Your task to perform on an android device: Search for "dell xps" on ebay, select the first entry, and add it to the cart. Image 0: 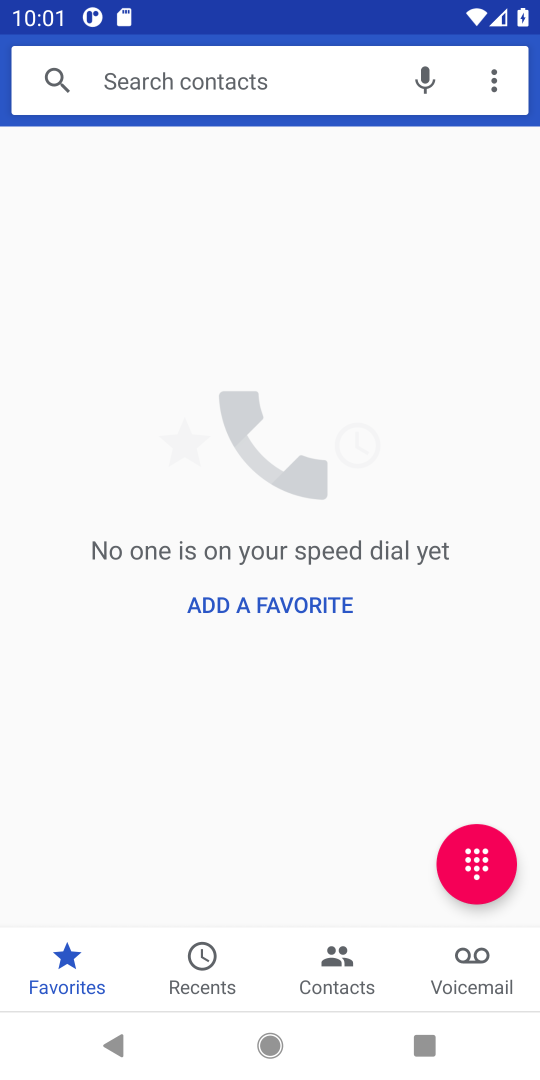
Step 0: press home button
Your task to perform on an android device: Search for "dell xps" on ebay, select the first entry, and add it to the cart. Image 1: 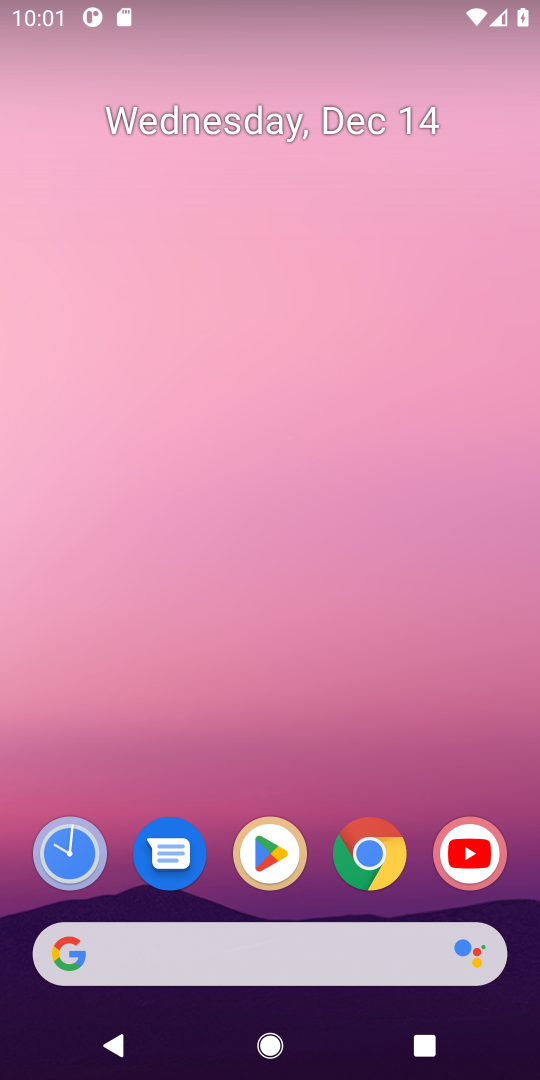
Step 1: click (376, 853)
Your task to perform on an android device: Search for "dell xps" on ebay, select the first entry, and add it to the cart. Image 2: 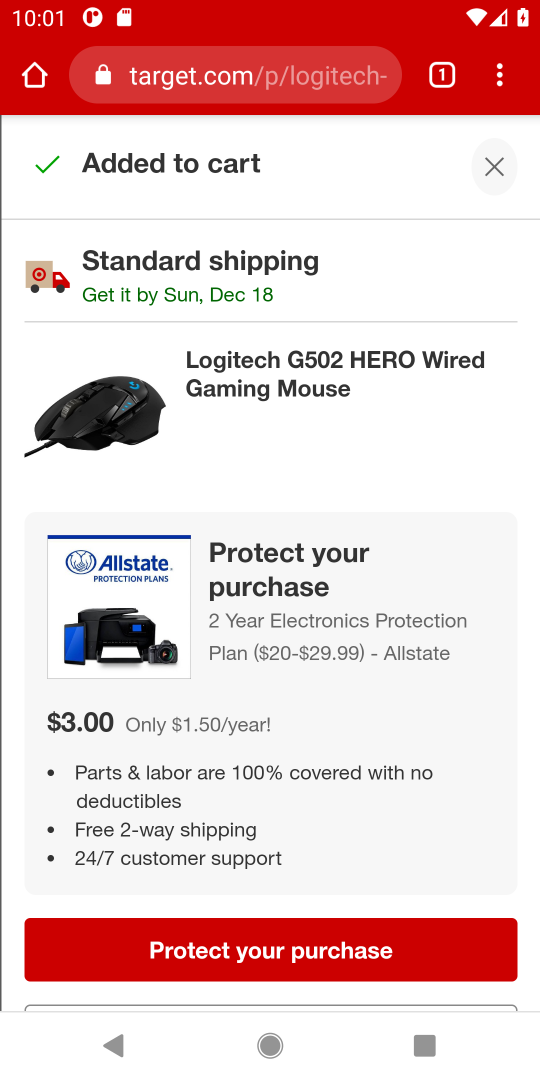
Step 2: click (303, 87)
Your task to perform on an android device: Search for "dell xps" on ebay, select the first entry, and add it to the cart. Image 3: 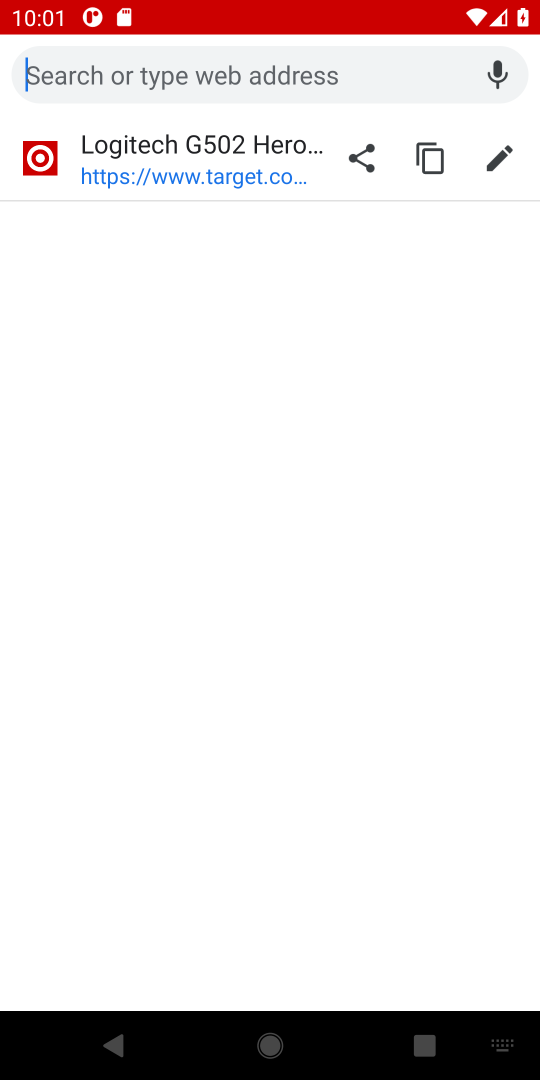
Step 3: press enter
Your task to perform on an android device: Search for "dell xps" on ebay, select the first entry, and add it to the cart. Image 4: 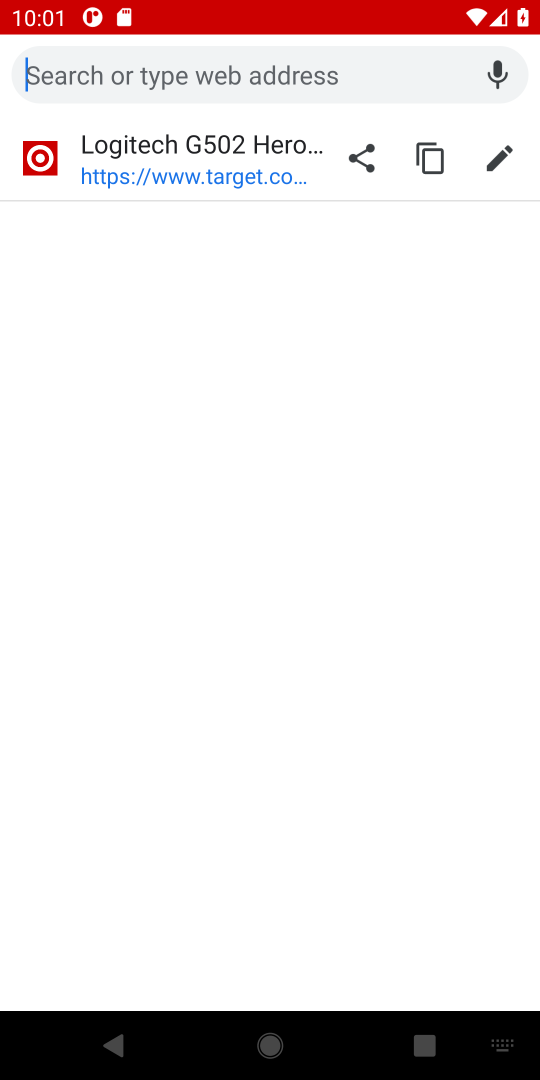
Step 4: type "ebay"
Your task to perform on an android device: Search for "dell xps" on ebay, select the first entry, and add it to the cart. Image 5: 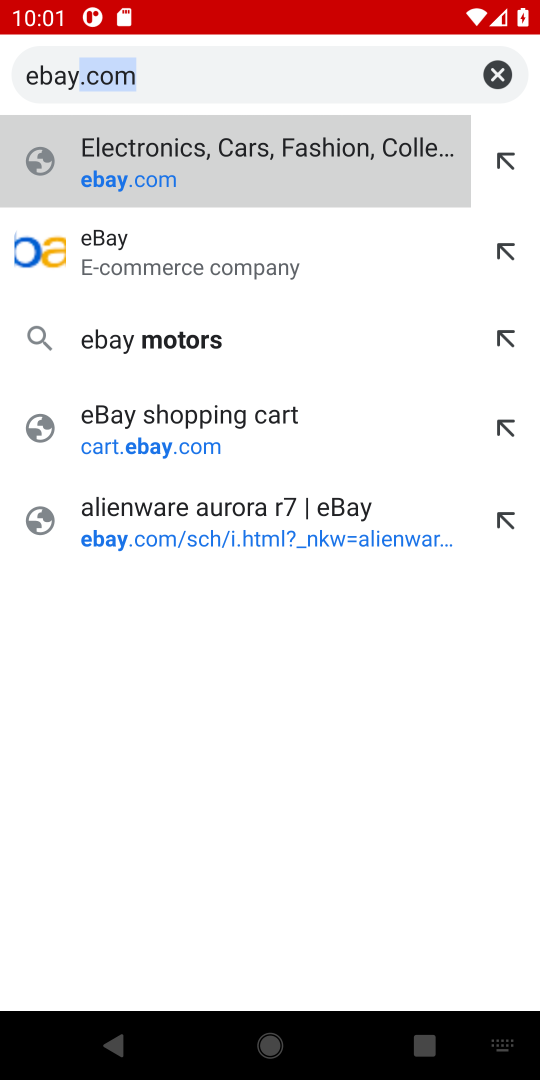
Step 5: click (322, 79)
Your task to perform on an android device: Search for "dell xps" on ebay, select the first entry, and add it to the cart. Image 6: 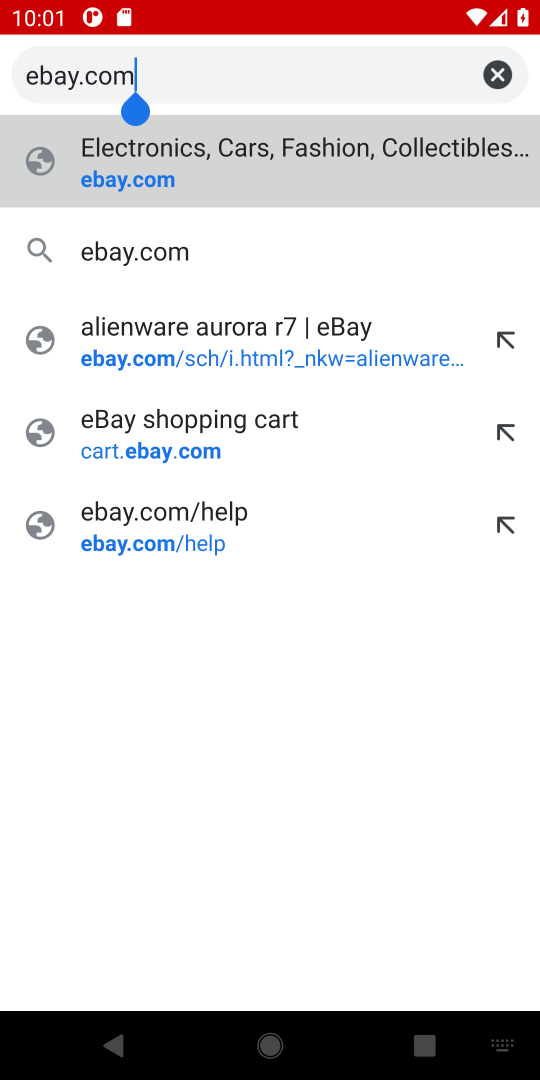
Step 6: click (157, 251)
Your task to perform on an android device: Search for "dell xps" on ebay, select the first entry, and add it to the cart. Image 7: 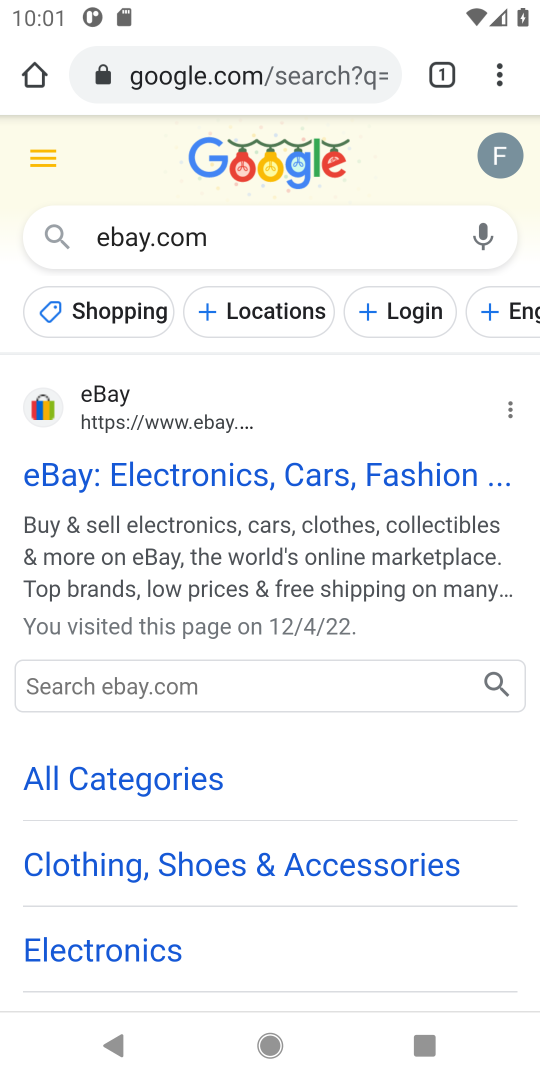
Step 7: click (143, 423)
Your task to perform on an android device: Search for "dell xps" on ebay, select the first entry, and add it to the cart. Image 8: 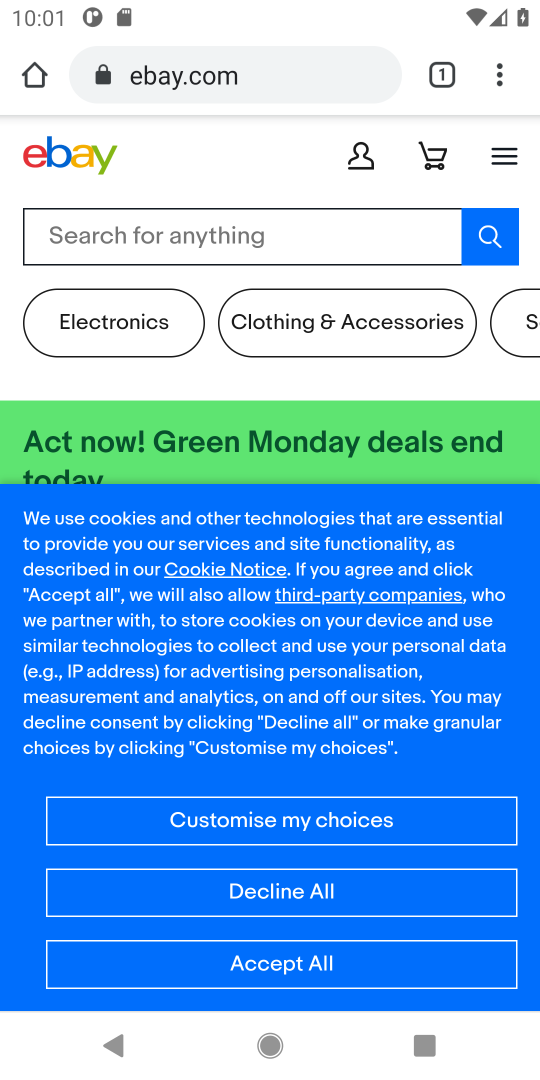
Step 8: click (353, 243)
Your task to perform on an android device: Search for "dell xps" on ebay, select the first entry, and add it to the cart. Image 9: 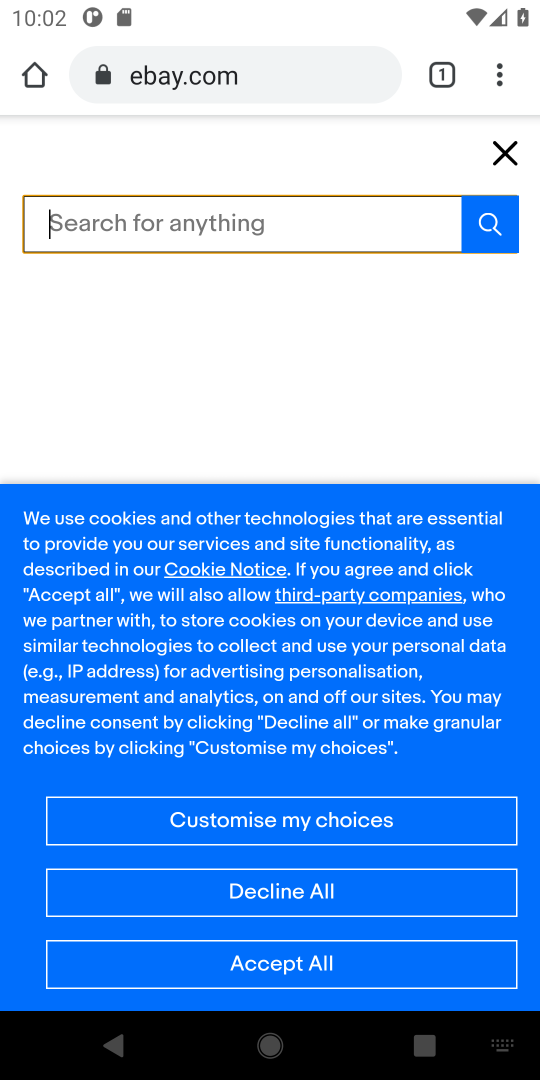
Step 9: press enter
Your task to perform on an android device: Search for "dell xps" on ebay, select the first entry, and add it to the cart. Image 10: 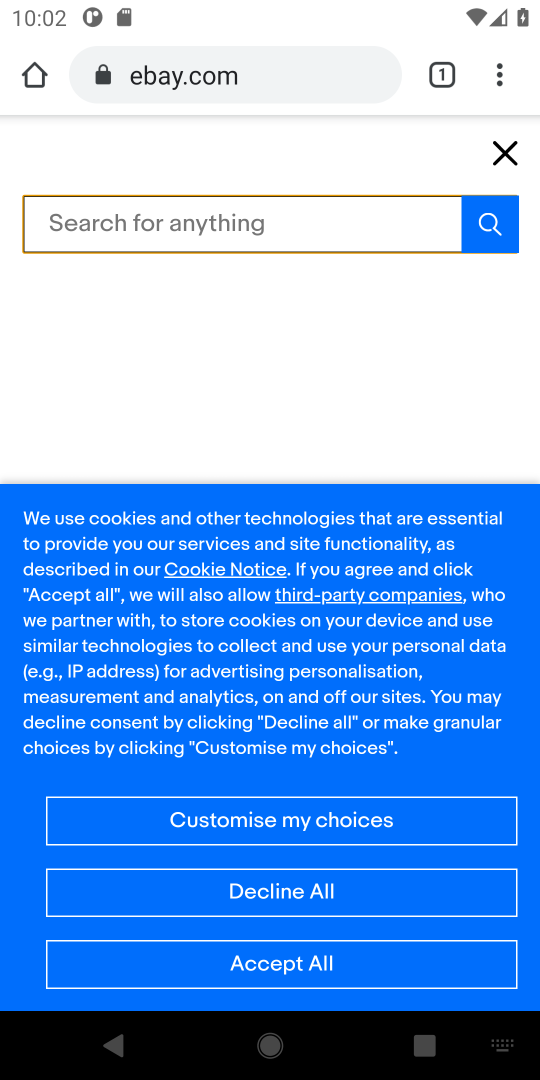
Step 10: type "dell xps"
Your task to perform on an android device: Search for "dell xps" on ebay, select the first entry, and add it to the cart. Image 11: 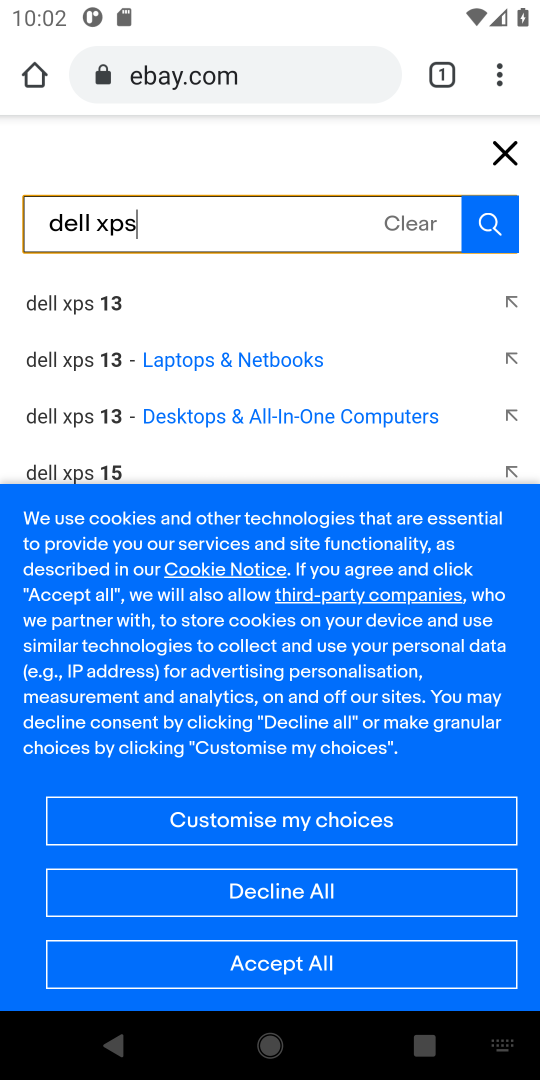
Step 11: click (328, 958)
Your task to perform on an android device: Search for "dell xps" on ebay, select the first entry, and add it to the cart. Image 12: 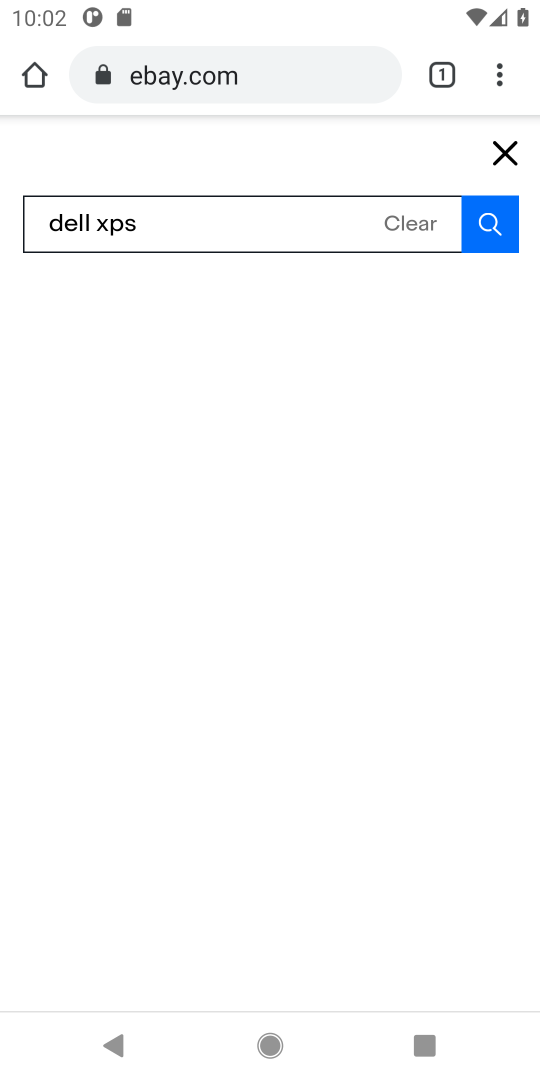
Step 12: click (486, 223)
Your task to perform on an android device: Search for "dell xps" on ebay, select the first entry, and add it to the cart. Image 13: 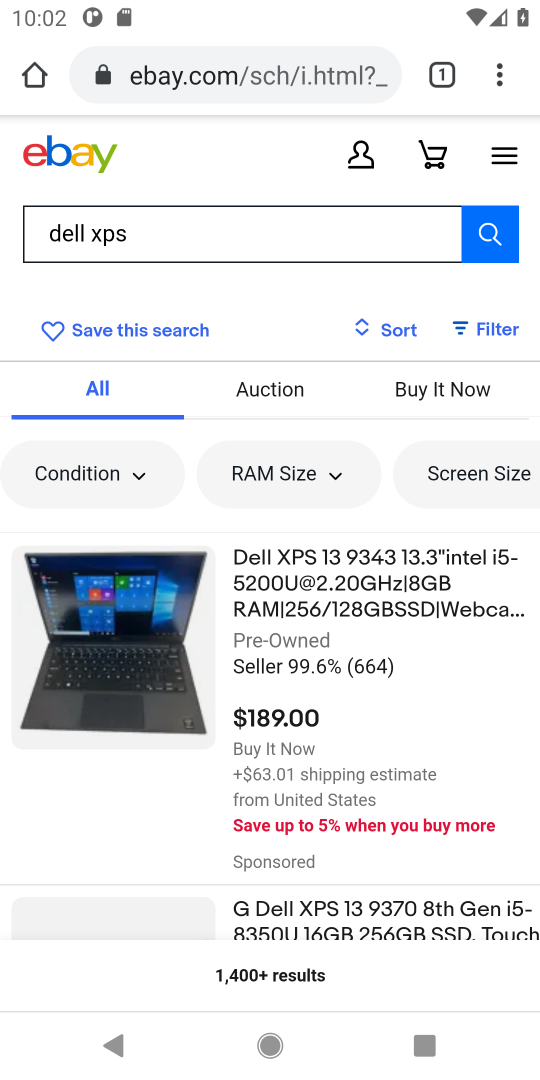
Step 13: click (104, 633)
Your task to perform on an android device: Search for "dell xps" on ebay, select the first entry, and add it to the cart. Image 14: 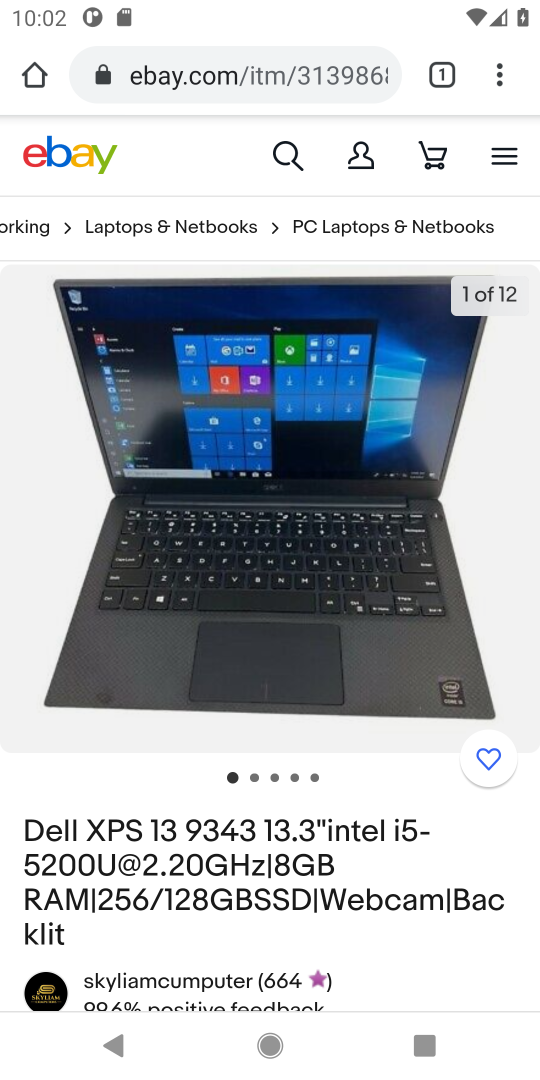
Step 14: drag from (292, 797) to (133, 291)
Your task to perform on an android device: Search for "dell xps" on ebay, select the first entry, and add it to the cart. Image 15: 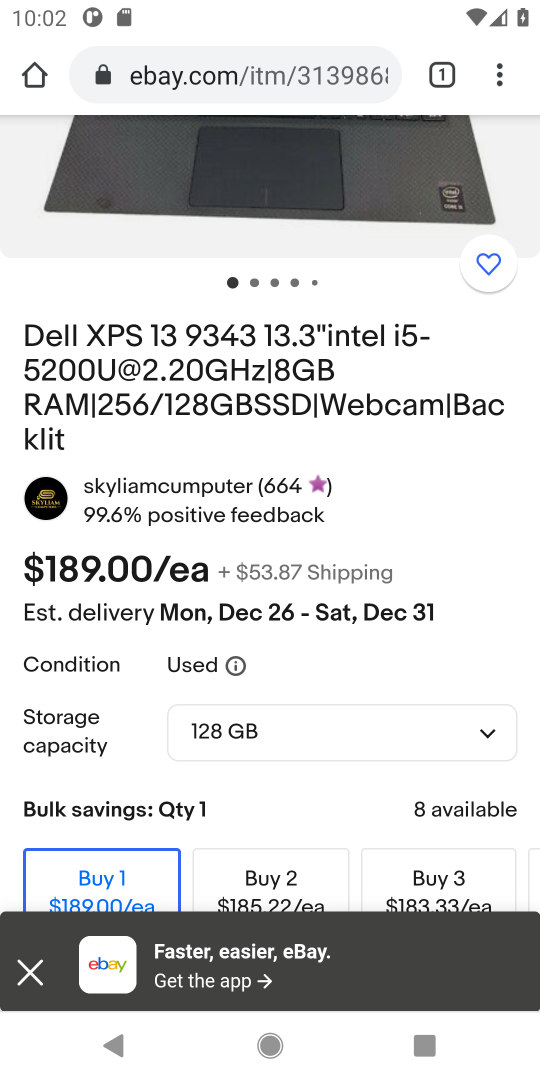
Step 15: drag from (425, 641) to (349, 400)
Your task to perform on an android device: Search for "dell xps" on ebay, select the first entry, and add it to the cart. Image 16: 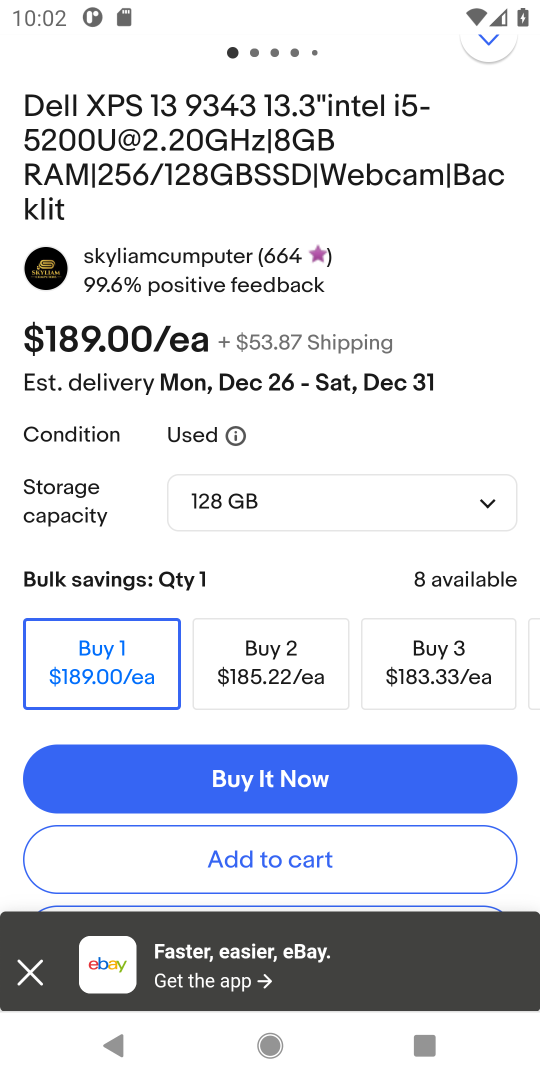
Step 16: click (278, 861)
Your task to perform on an android device: Search for "dell xps" on ebay, select the first entry, and add it to the cart. Image 17: 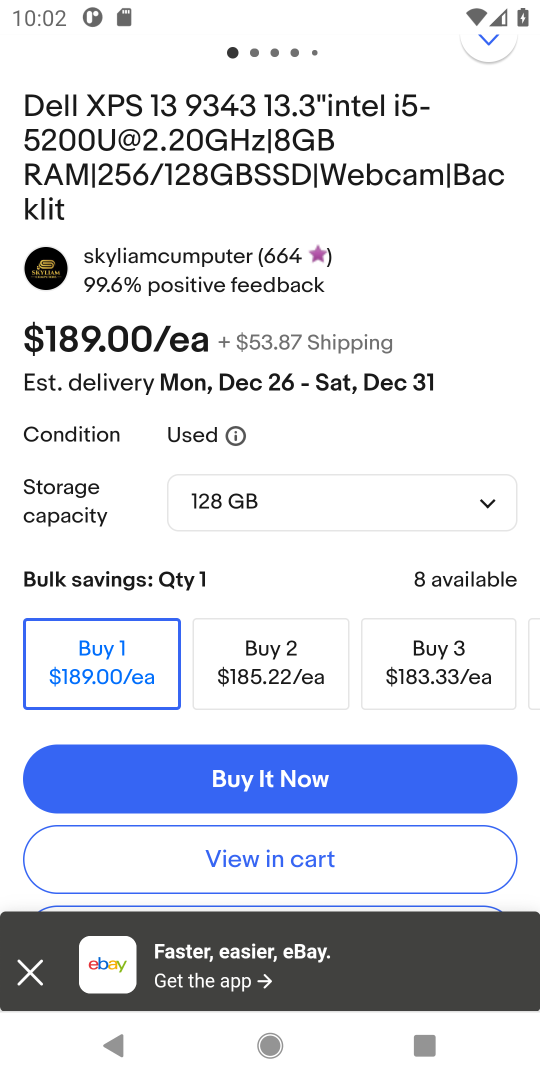
Step 17: click (278, 861)
Your task to perform on an android device: Search for "dell xps" on ebay, select the first entry, and add it to the cart. Image 18: 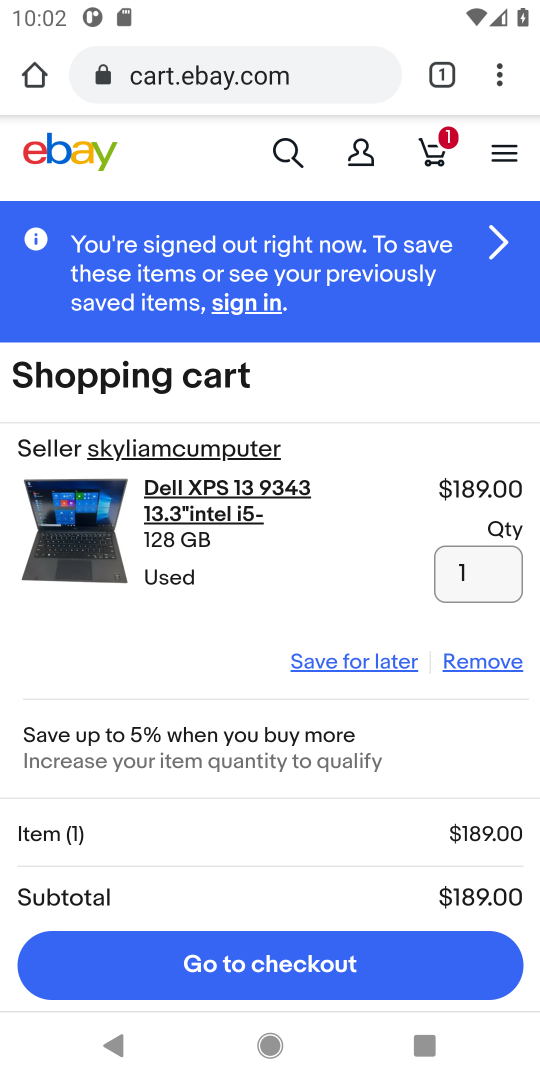
Step 18: task complete